Your task to perform on an android device: Open calendar and show me the fourth week of next month Image 0: 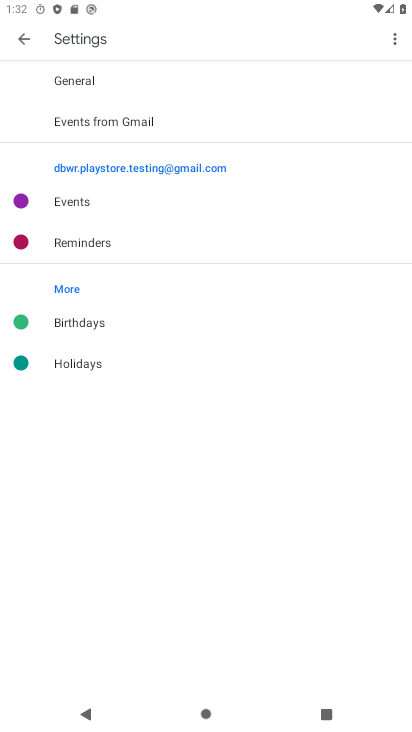
Step 0: press home button
Your task to perform on an android device: Open calendar and show me the fourth week of next month Image 1: 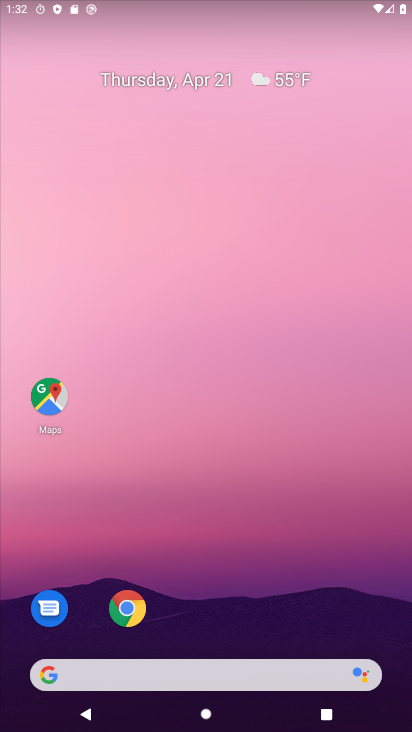
Step 1: drag from (156, 591) to (135, 121)
Your task to perform on an android device: Open calendar and show me the fourth week of next month Image 2: 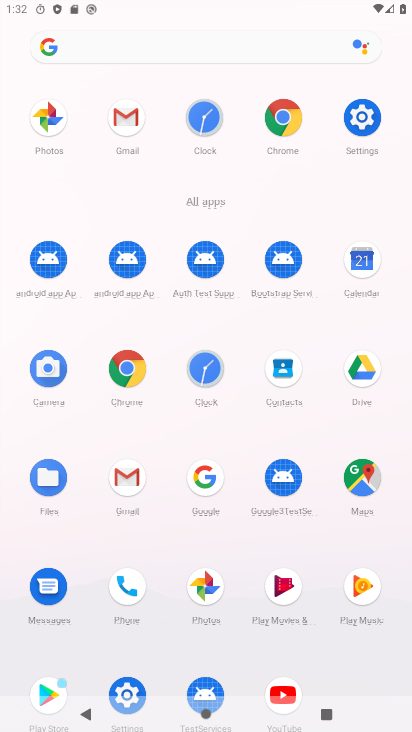
Step 2: click (364, 254)
Your task to perform on an android device: Open calendar and show me the fourth week of next month Image 3: 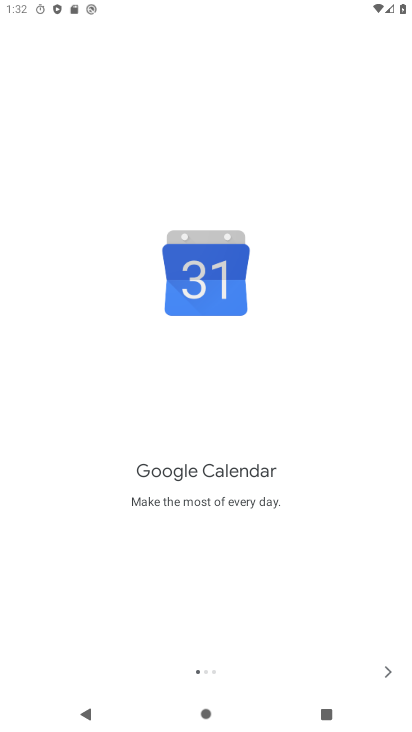
Step 3: click (387, 689)
Your task to perform on an android device: Open calendar and show me the fourth week of next month Image 4: 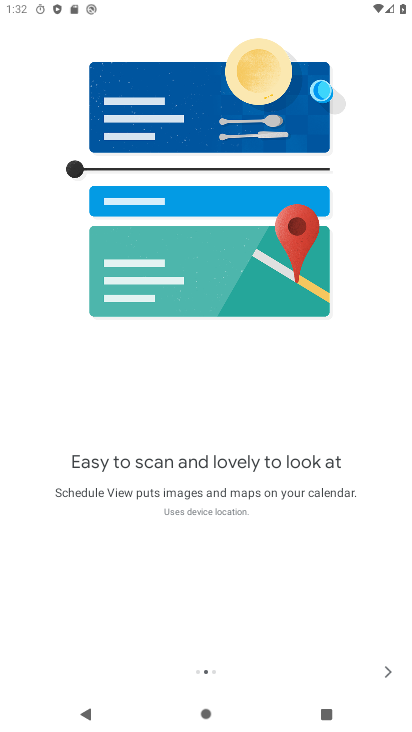
Step 4: click (391, 669)
Your task to perform on an android device: Open calendar and show me the fourth week of next month Image 5: 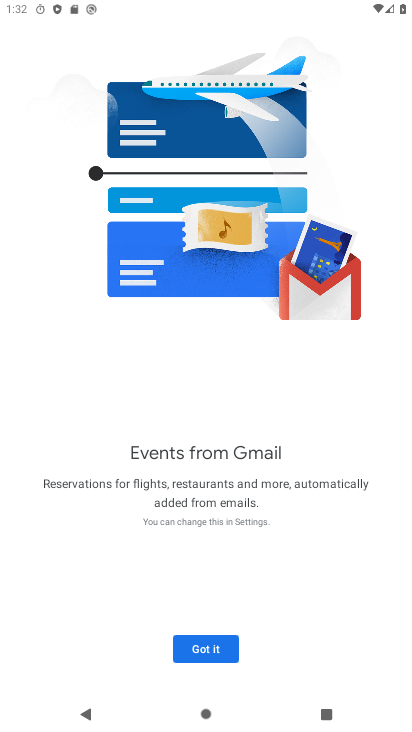
Step 5: click (219, 656)
Your task to perform on an android device: Open calendar and show me the fourth week of next month Image 6: 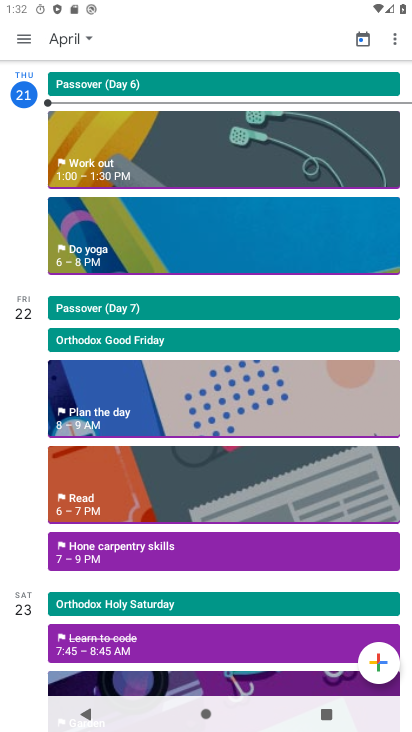
Step 6: click (57, 39)
Your task to perform on an android device: Open calendar and show me the fourth week of next month Image 7: 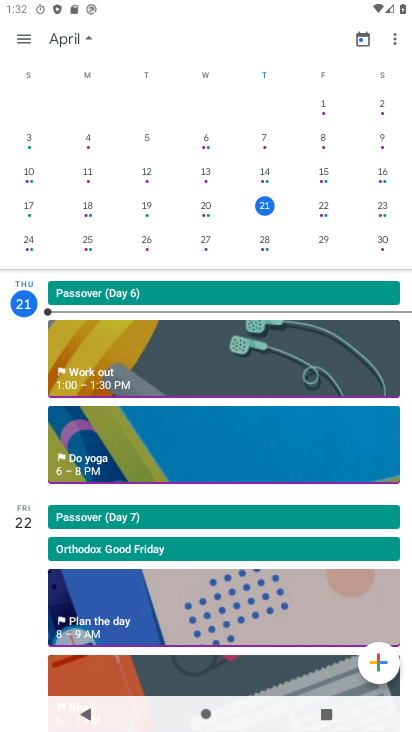
Step 7: drag from (153, 177) to (4, 174)
Your task to perform on an android device: Open calendar and show me the fourth week of next month Image 8: 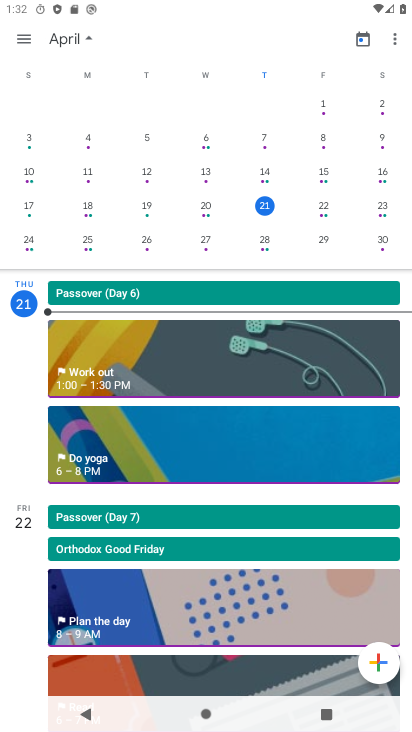
Step 8: drag from (357, 192) to (11, 168)
Your task to perform on an android device: Open calendar and show me the fourth week of next month Image 9: 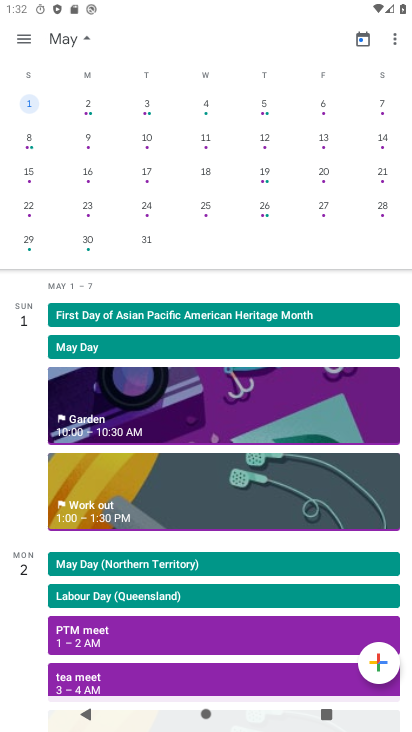
Step 9: click (27, 203)
Your task to perform on an android device: Open calendar and show me the fourth week of next month Image 10: 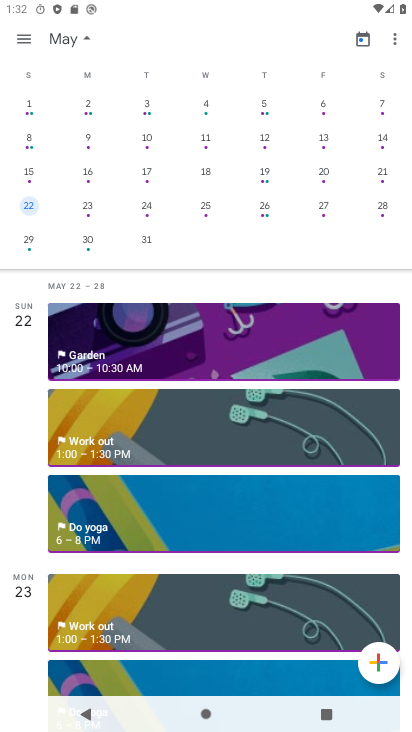
Step 10: click (26, 36)
Your task to perform on an android device: Open calendar and show me the fourth week of next month Image 11: 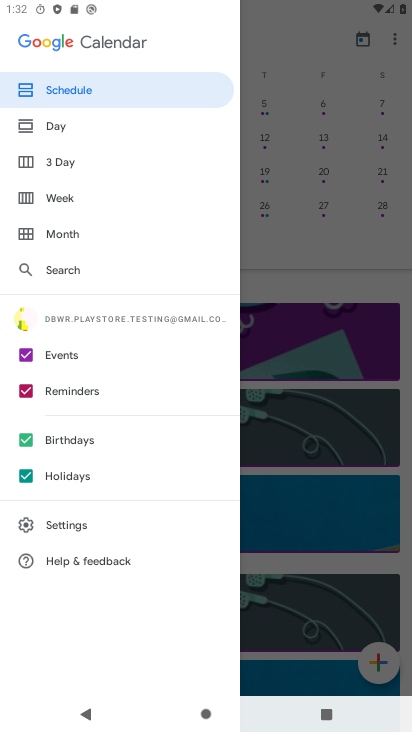
Step 11: click (37, 198)
Your task to perform on an android device: Open calendar and show me the fourth week of next month Image 12: 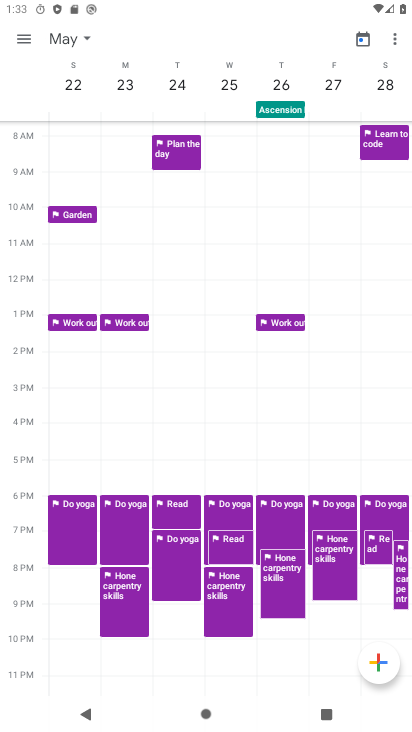
Step 12: task complete